Your task to perform on an android device: turn on bluetooth scan Image 0: 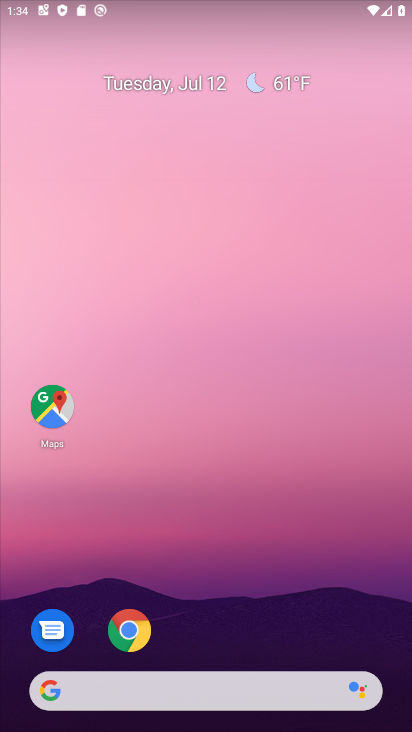
Step 0: drag from (198, 661) to (198, 239)
Your task to perform on an android device: turn on bluetooth scan Image 1: 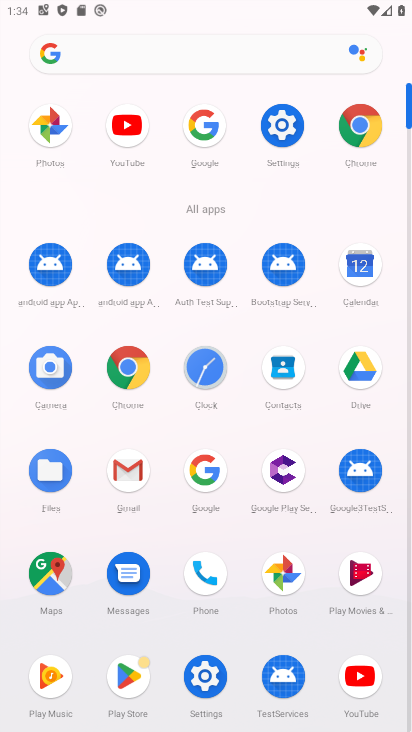
Step 1: click (277, 108)
Your task to perform on an android device: turn on bluetooth scan Image 2: 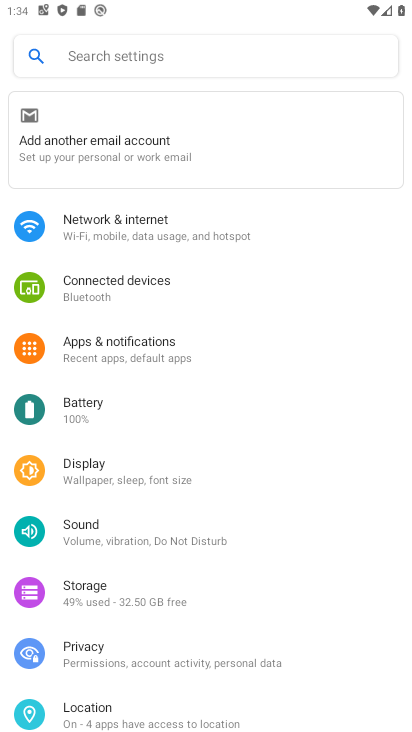
Step 2: drag from (140, 661) to (139, 415)
Your task to perform on an android device: turn on bluetooth scan Image 3: 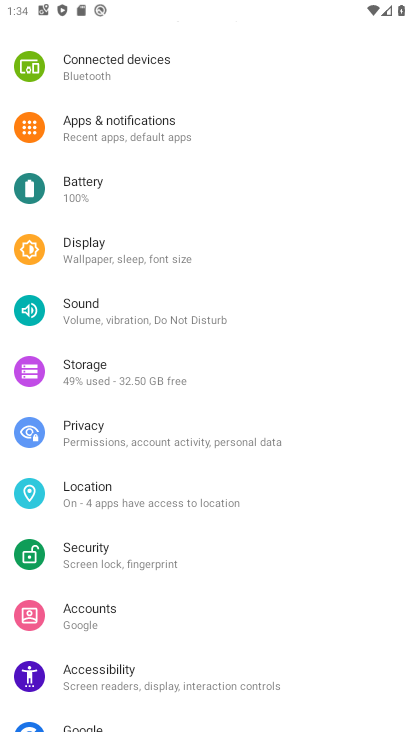
Step 3: click (132, 492)
Your task to perform on an android device: turn on bluetooth scan Image 4: 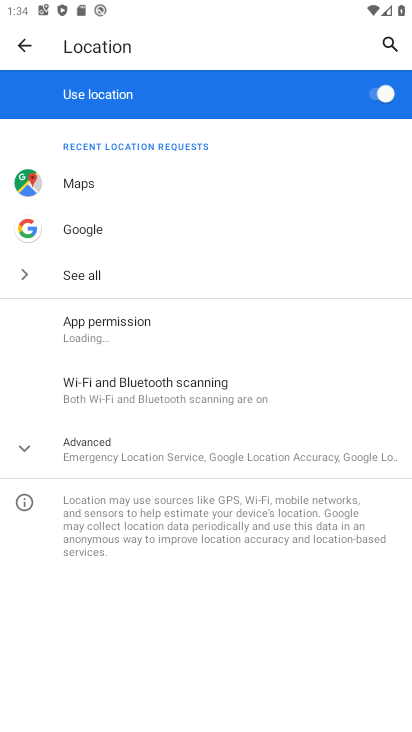
Step 4: click (187, 398)
Your task to perform on an android device: turn on bluetooth scan Image 5: 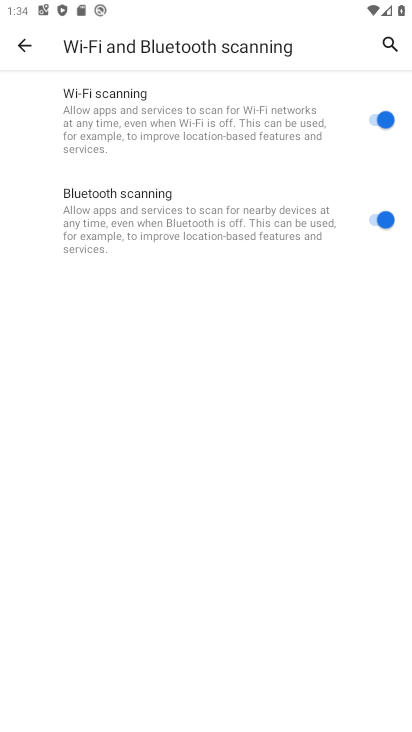
Step 5: task complete